Your task to perform on an android device: add a contact Image 0: 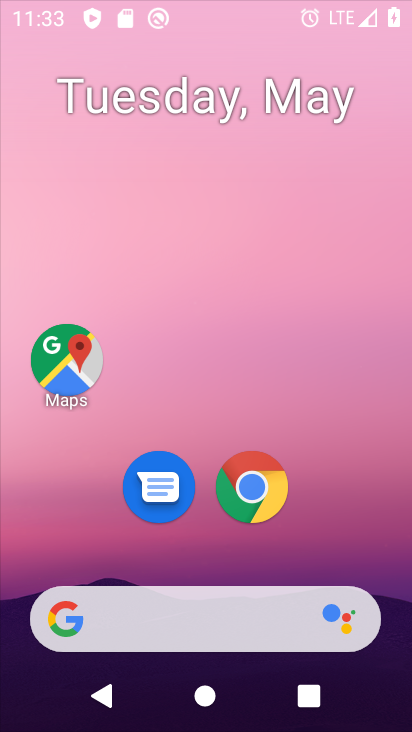
Step 0: drag from (171, 570) to (220, 133)
Your task to perform on an android device: add a contact Image 1: 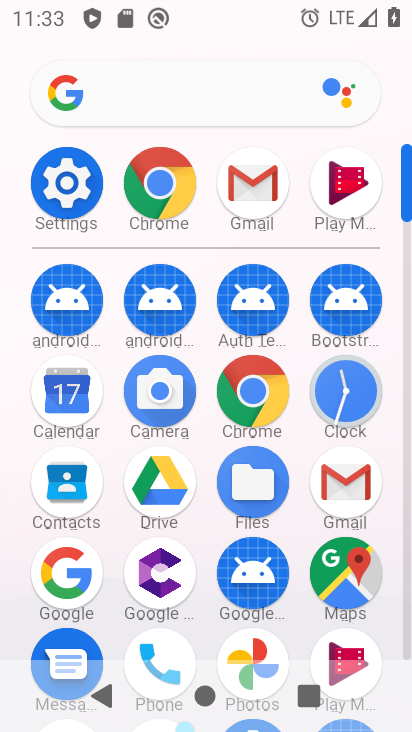
Step 1: click (76, 476)
Your task to perform on an android device: add a contact Image 2: 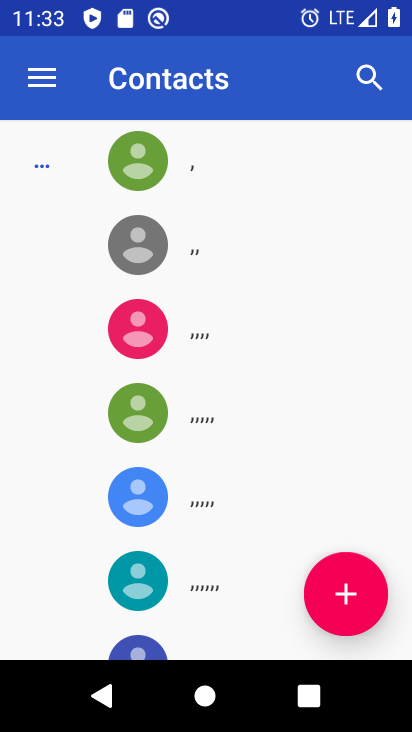
Step 2: click (351, 581)
Your task to perform on an android device: add a contact Image 3: 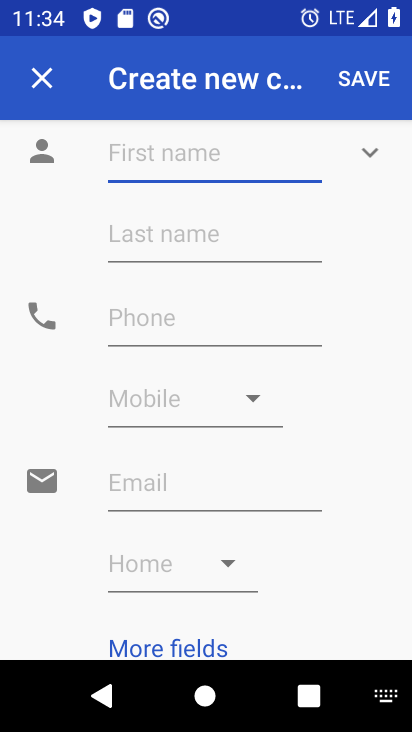
Step 3: type "aasa"
Your task to perform on an android device: add a contact Image 4: 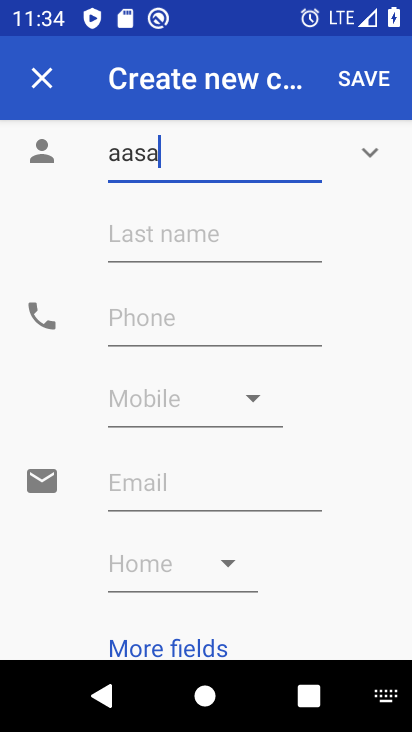
Step 4: type ""
Your task to perform on an android device: add a contact Image 5: 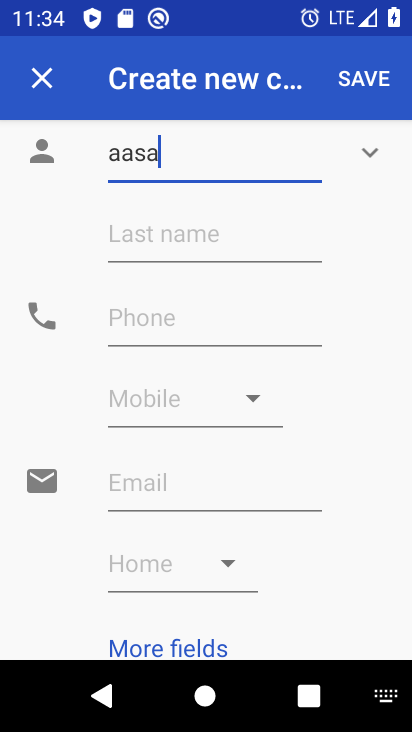
Step 5: click (358, 47)
Your task to perform on an android device: add a contact Image 6: 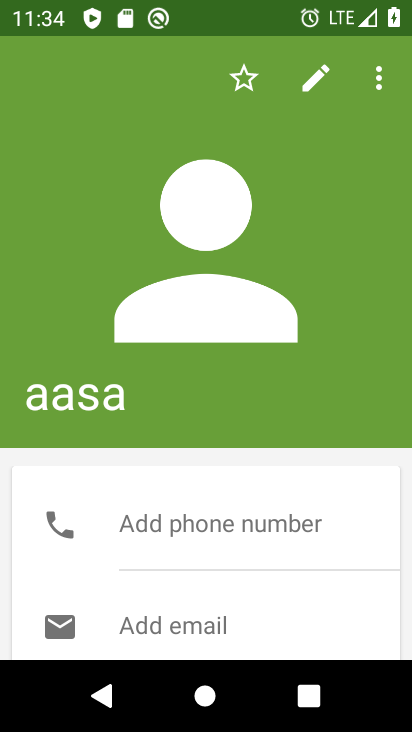
Step 6: task complete